Your task to perform on an android device: Go to wifi settings Image 0: 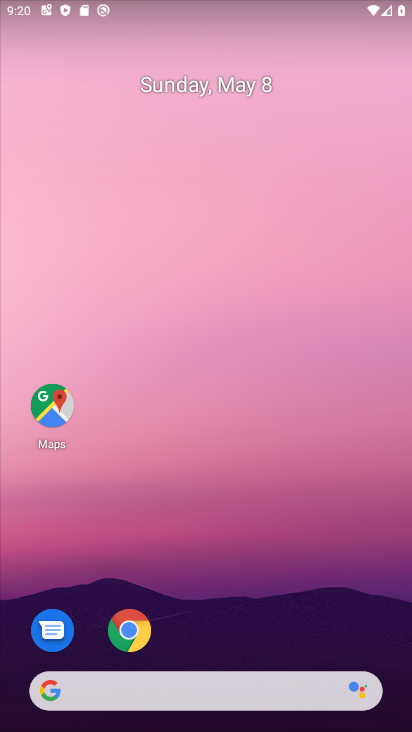
Step 0: drag from (205, 684) to (288, 171)
Your task to perform on an android device: Go to wifi settings Image 1: 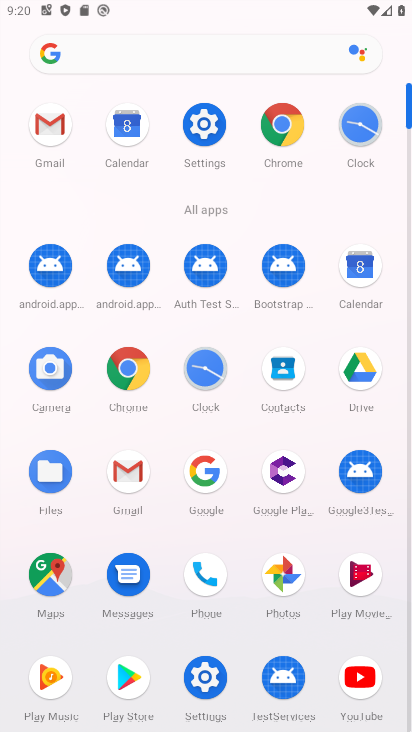
Step 1: click (208, 117)
Your task to perform on an android device: Go to wifi settings Image 2: 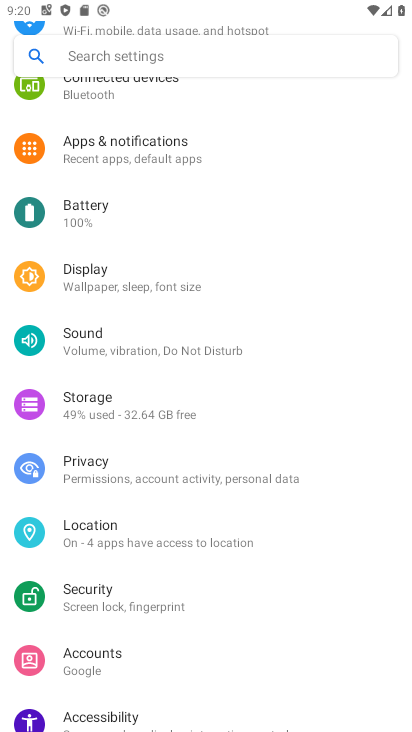
Step 2: drag from (279, 177) to (279, 616)
Your task to perform on an android device: Go to wifi settings Image 3: 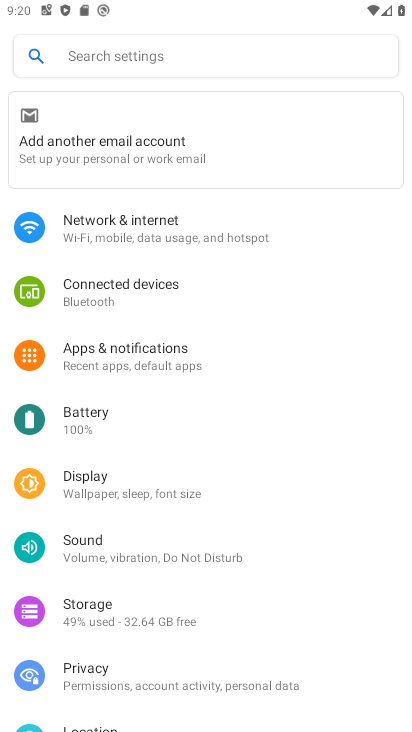
Step 3: click (140, 233)
Your task to perform on an android device: Go to wifi settings Image 4: 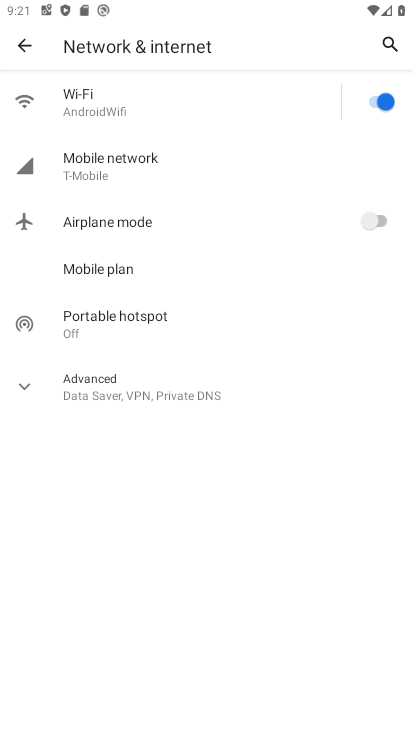
Step 4: click (126, 107)
Your task to perform on an android device: Go to wifi settings Image 5: 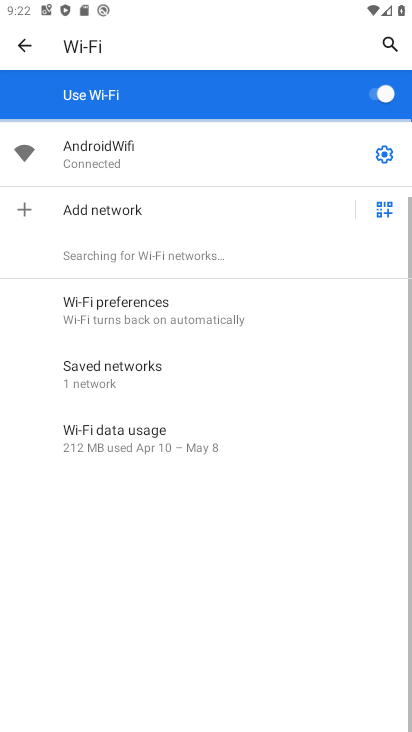
Step 5: task complete